Your task to perform on an android device: toggle pop-ups in chrome Image 0: 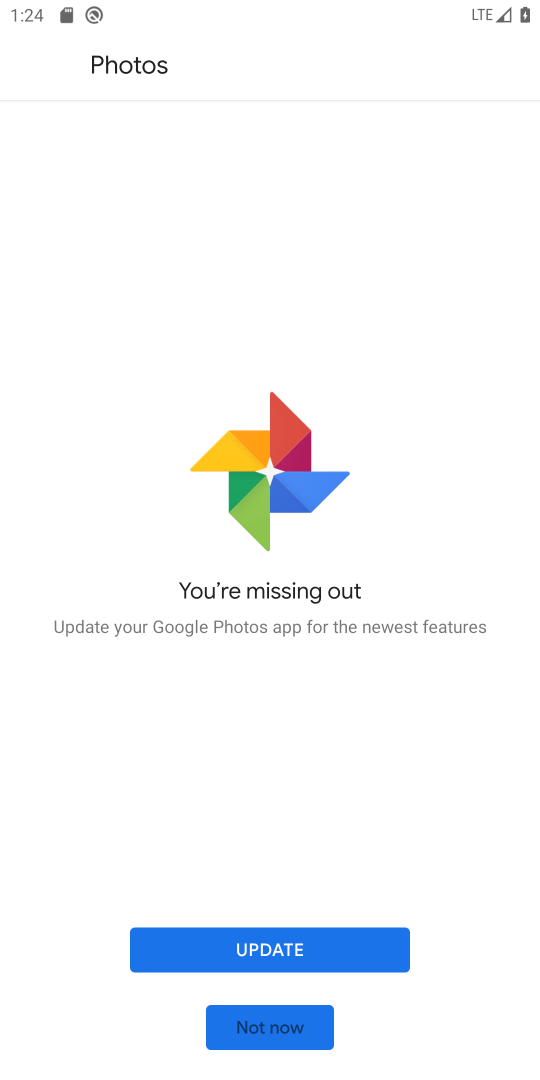
Step 0: press home button
Your task to perform on an android device: toggle pop-ups in chrome Image 1: 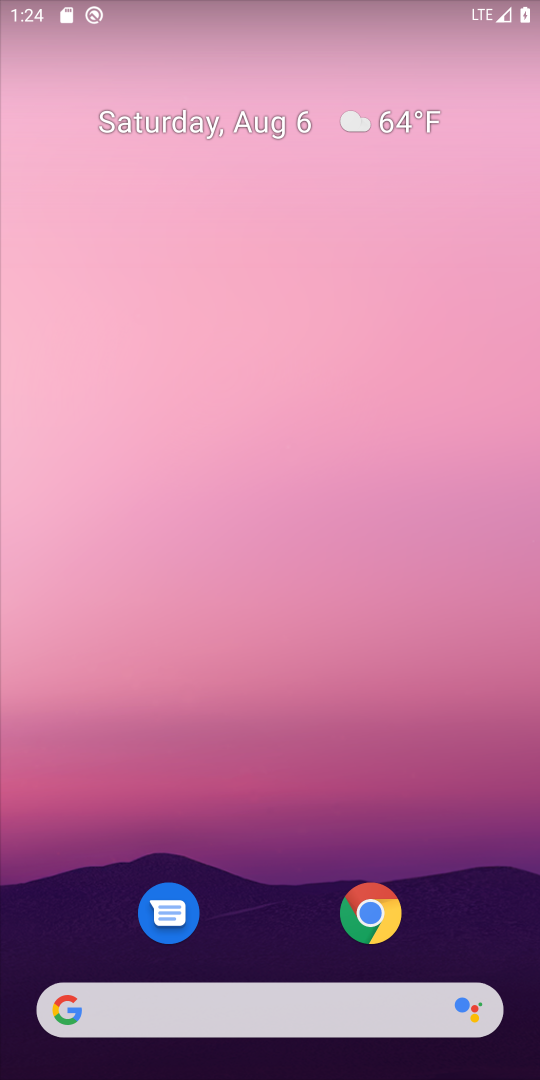
Step 1: drag from (284, 940) to (295, 259)
Your task to perform on an android device: toggle pop-ups in chrome Image 2: 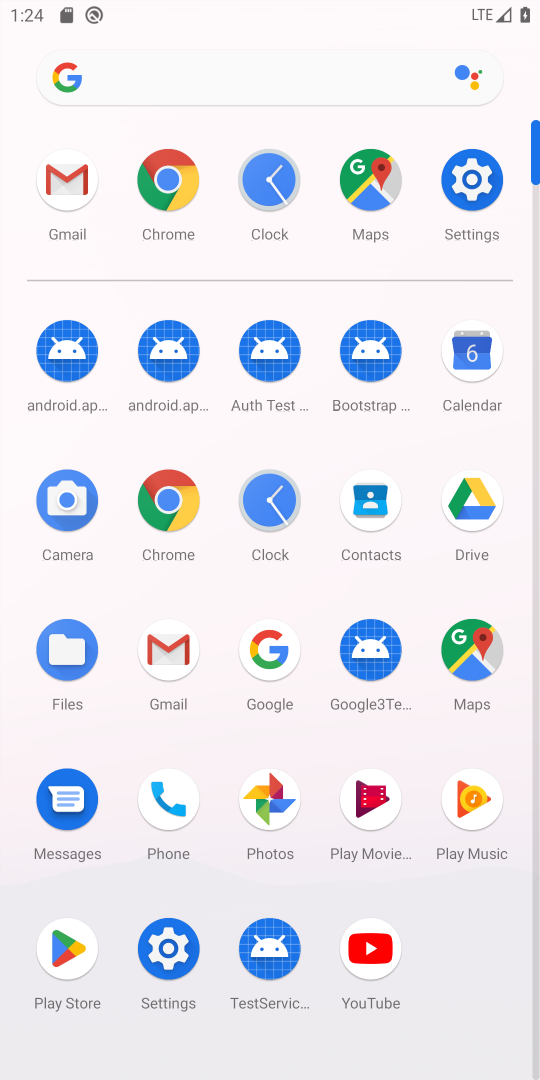
Step 2: click (164, 505)
Your task to perform on an android device: toggle pop-ups in chrome Image 3: 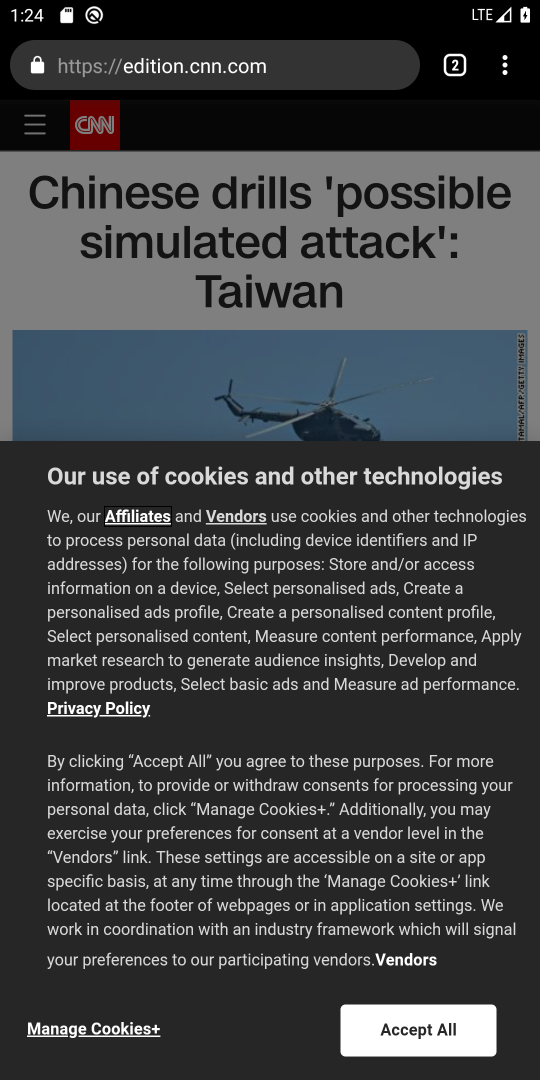
Step 3: click (506, 71)
Your task to perform on an android device: toggle pop-ups in chrome Image 4: 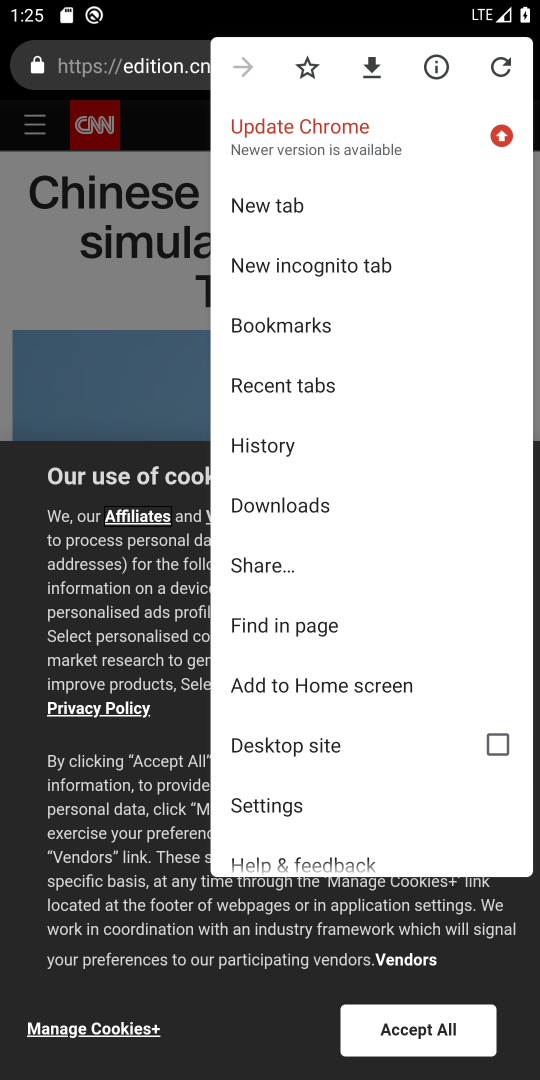
Step 4: click (283, 808)
Your task to perform on an android device: toggle pop-ups in chrome Image 5: 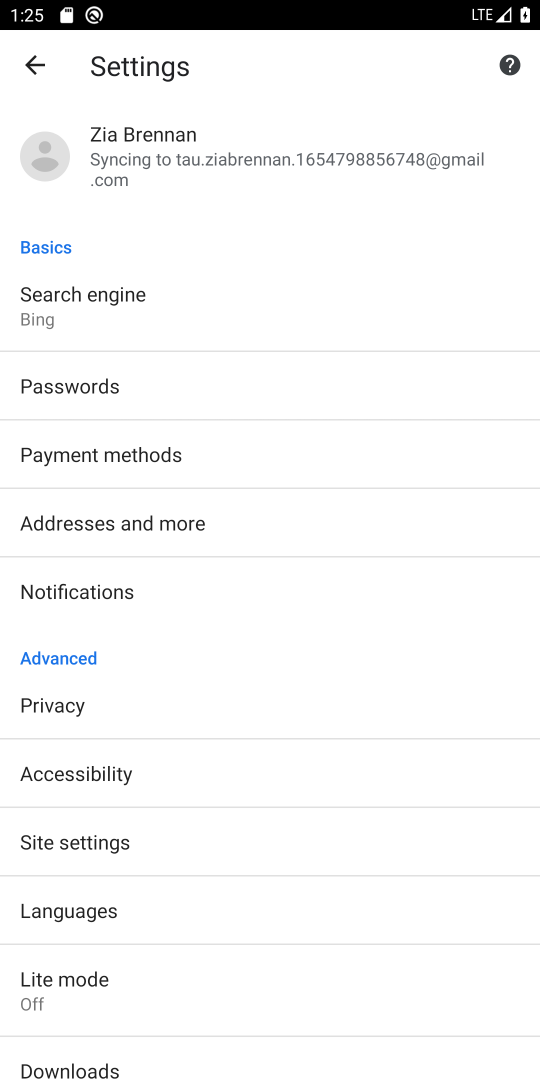
Step 5: click (225, 846)
Your task to perform on an android device: toggle pop-ups in chrome Image 6: 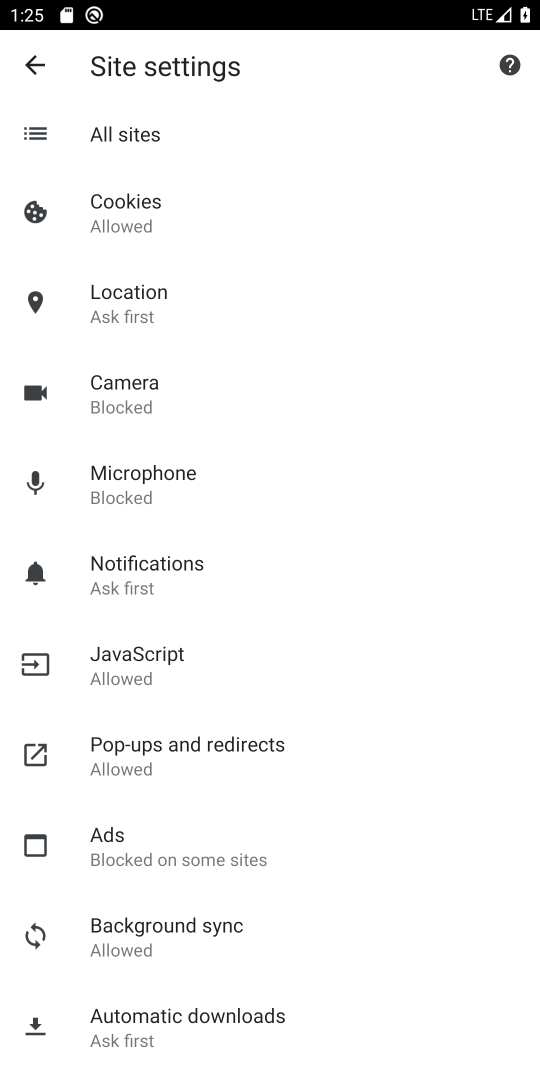
Step 6: click (264, 755)
Your task to perform on an android device: toggle pop-ups in chrome Image 7: 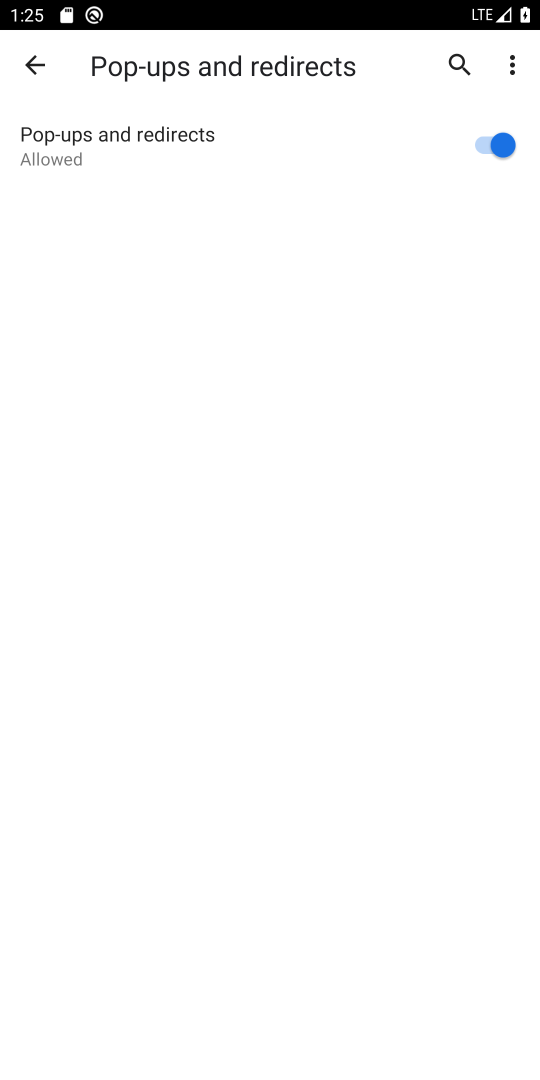
Step 7: click (486, 143)
Your task to perform on an android device: toggle pop-ups in chrome Image 8: 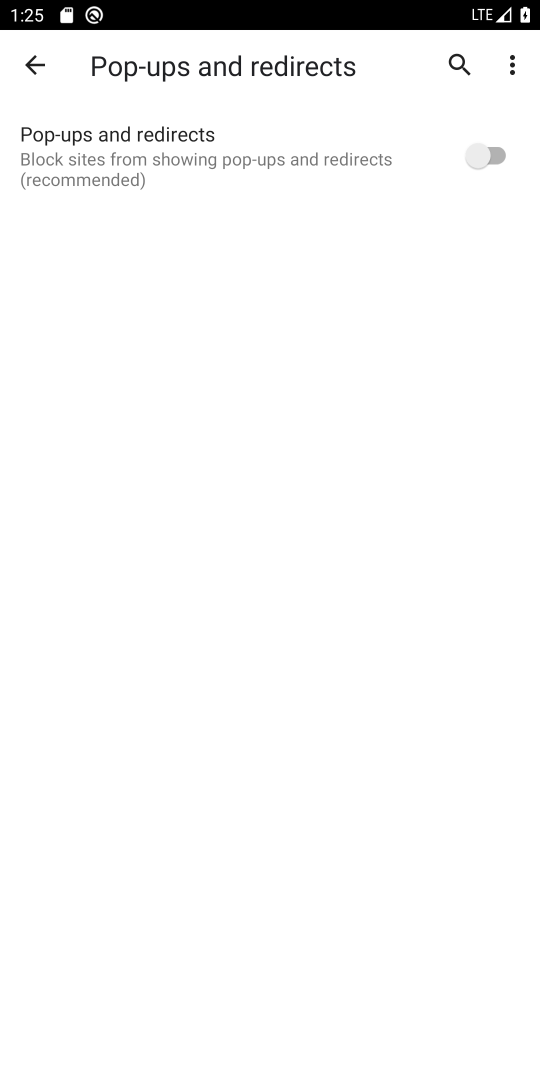
Step 8: task complete